Your task to perform on an android device: Turn on the flashlight Image 0: 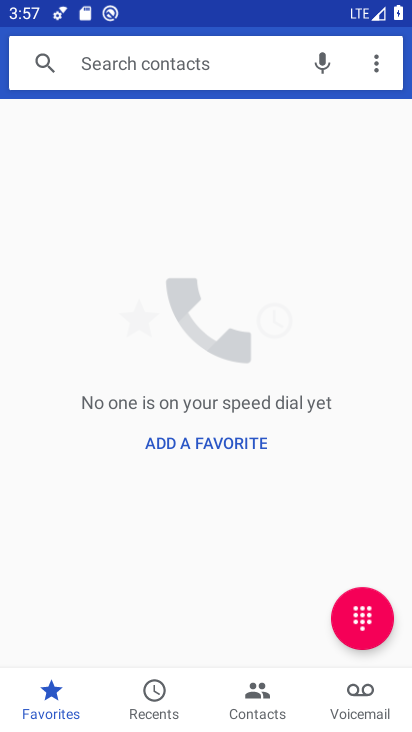
Step 0: press home button
Your task to perform on an android device: Turn on the flashlight Image 1: 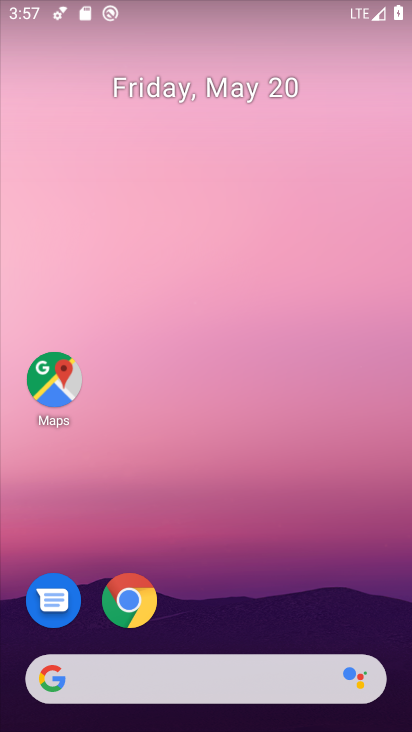
Step 1: drag from (285, 7) to (263, 422)
Your task to perform on an android device: Turn on the flashlight Image 2: 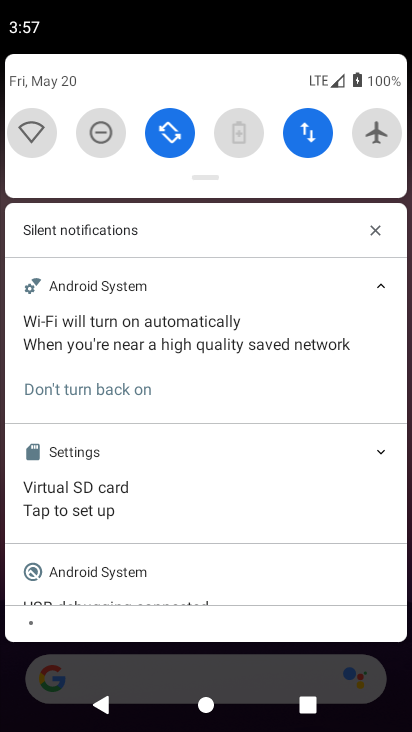
Step 2: drag from (261, 79) to (266, 379)
Your task to perform on an android device: Turn on the flashlight Image 3: 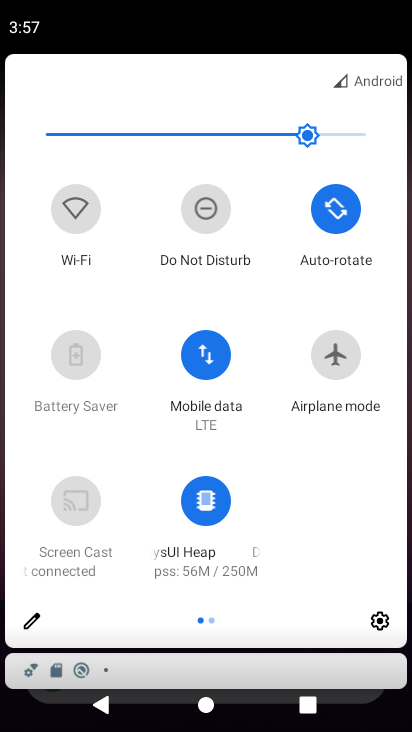
Step 3: click (35, 625)
Your task to perform on an android device: Turn on the flashlight Image 4: 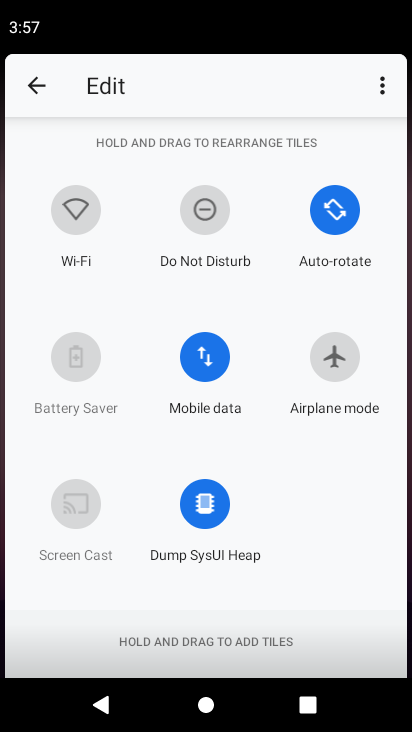
Step 4: task complete